Your task to perform on an android device: toggle translation in the chrome app Image 0: 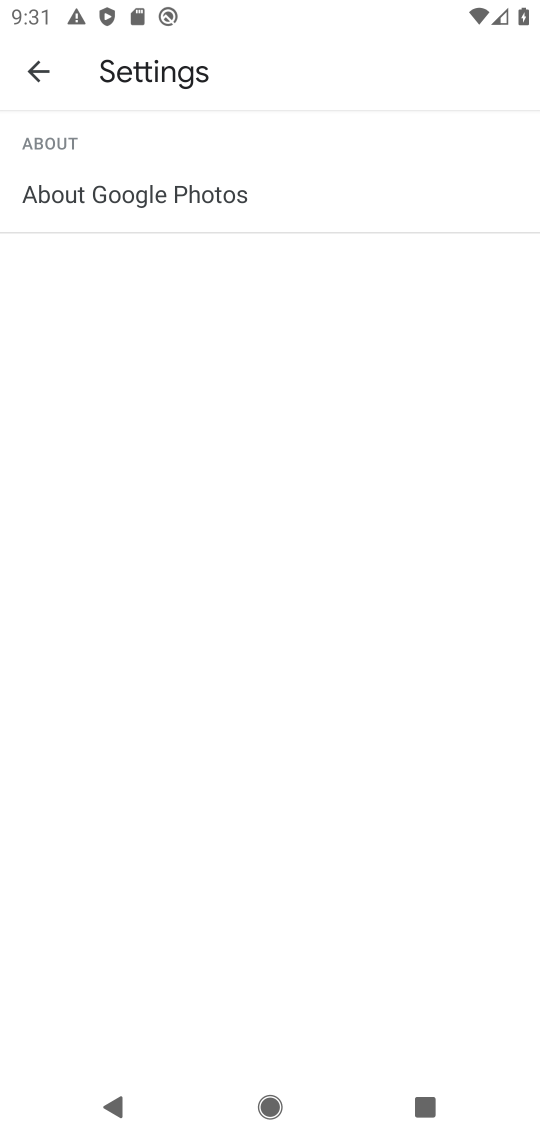
Step 0: press home button
Your task to perform on an android device: toggle translation in the chrome app Image 1: 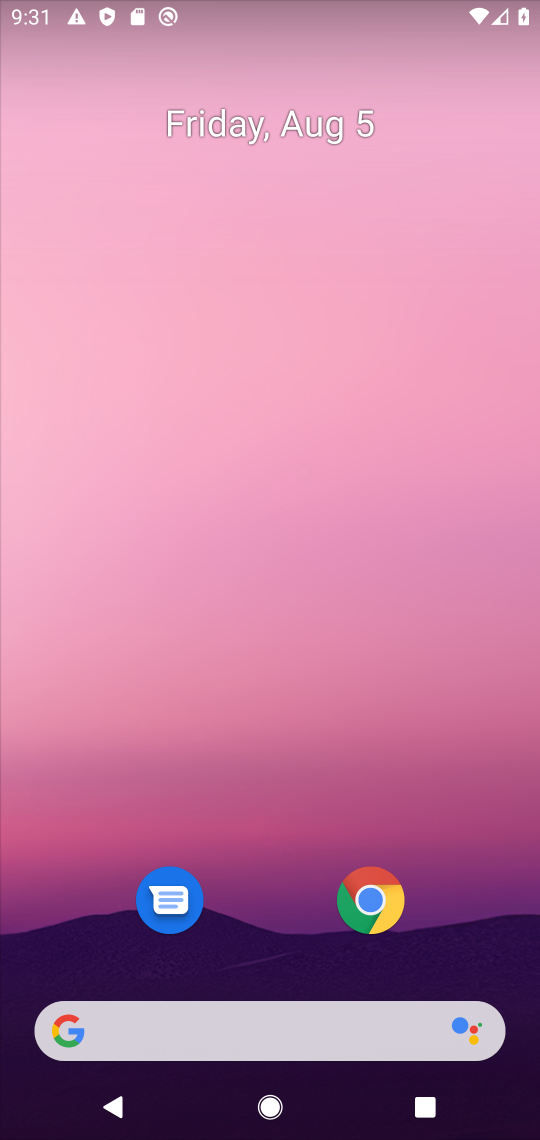
Step 1: drag from (475, 934) to (308, 136)
Your task to perform on an android device: toggle translation in the chrome app Image 2: 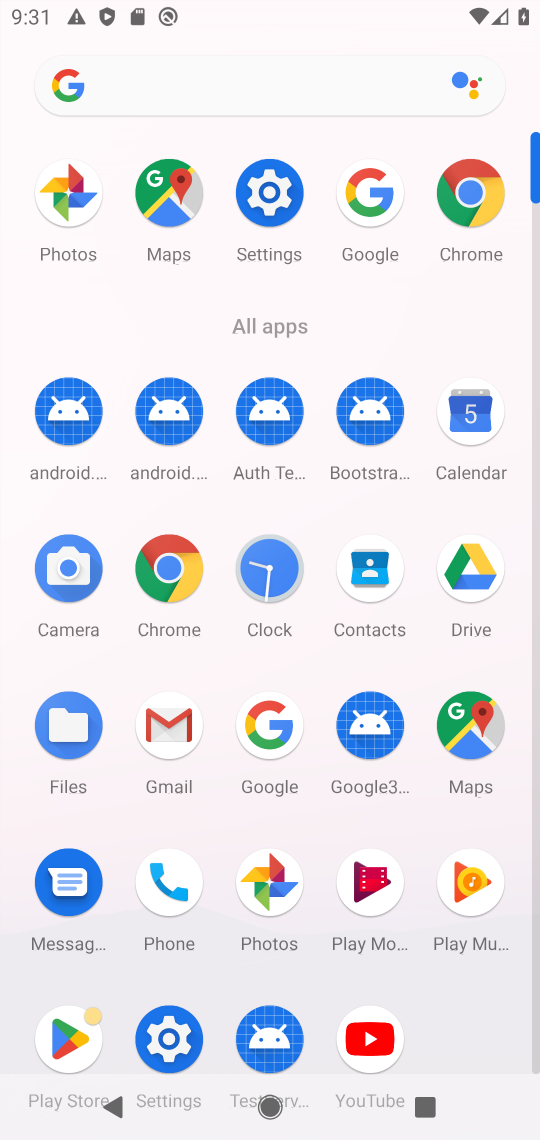
Step 2: click (448, 172)
Your task to perform on an android device: toggle translation in the chrome app Image 3: 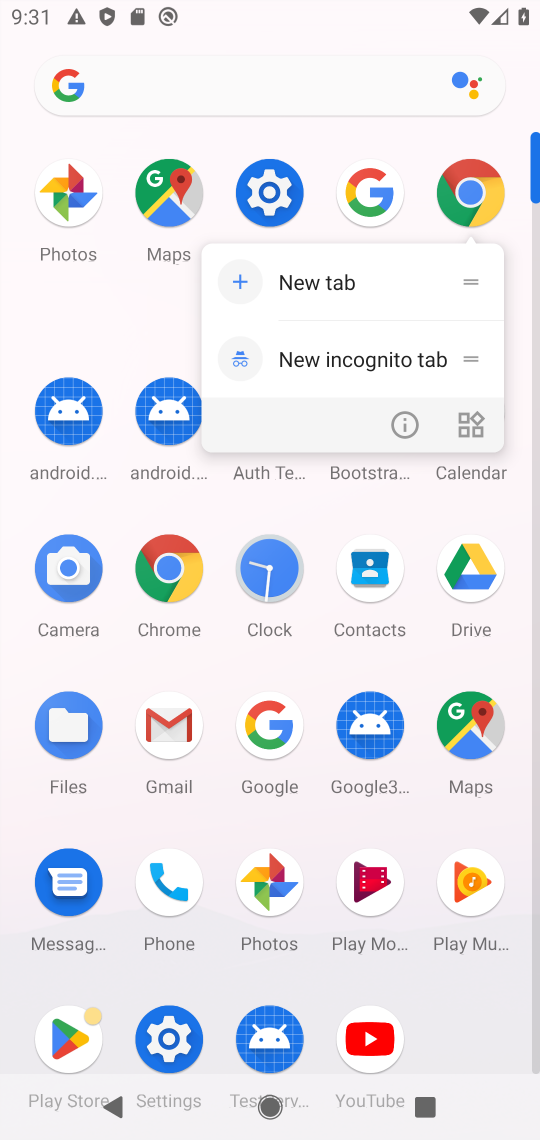
Step 3: click (465, 195)
Your task to perform on an android device: toggle translation in the chrome app Image 4: 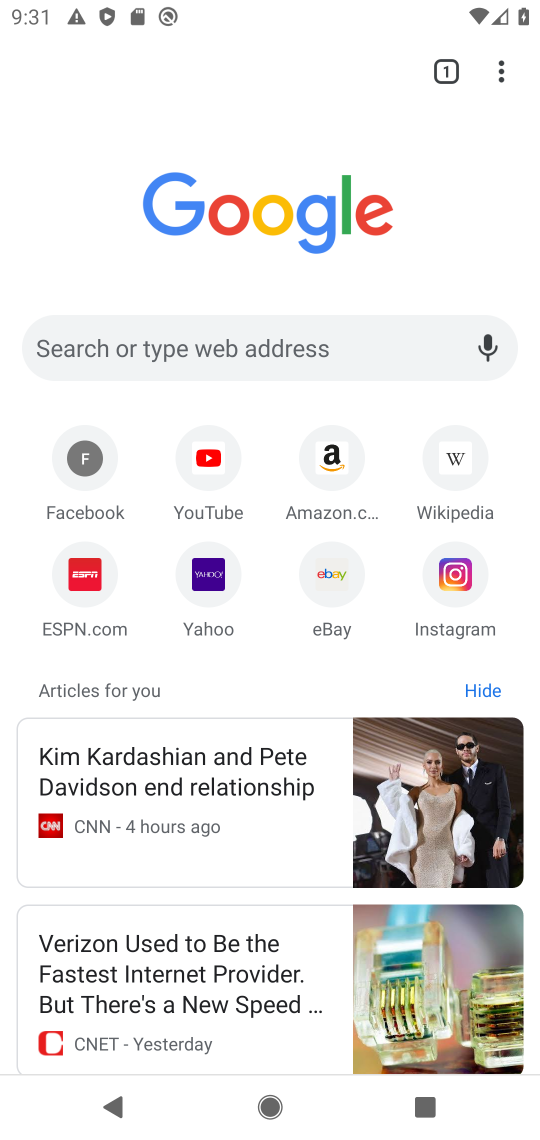
Step 4: click (465, 195)
Your task to perform on an android device: toggle translation in the chrome app Image 5: 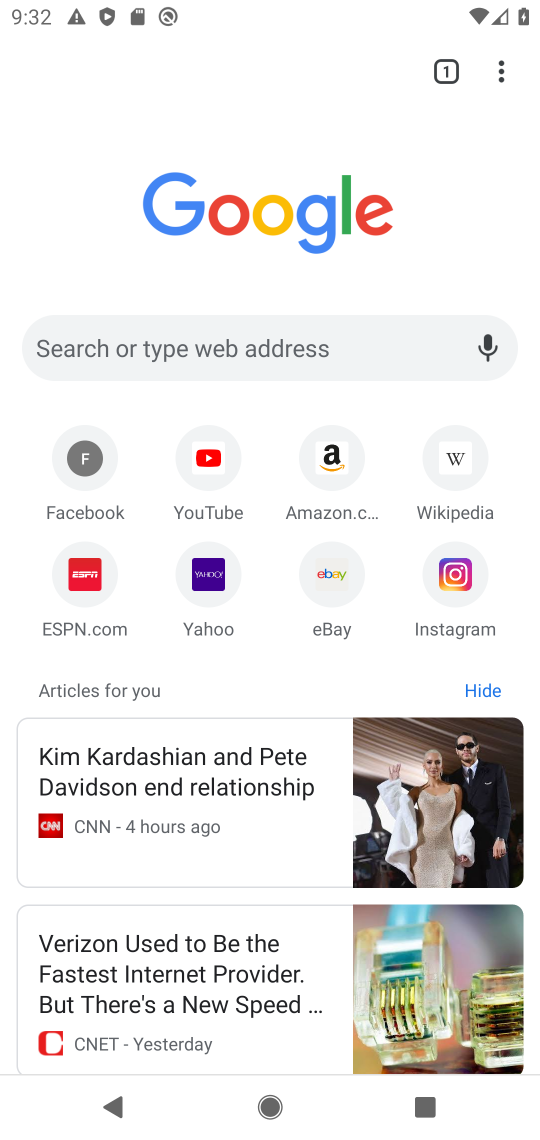
Step 5: click (502, 88)
Your task to perform on an android device: toggle translation in the chrome app Image 6: 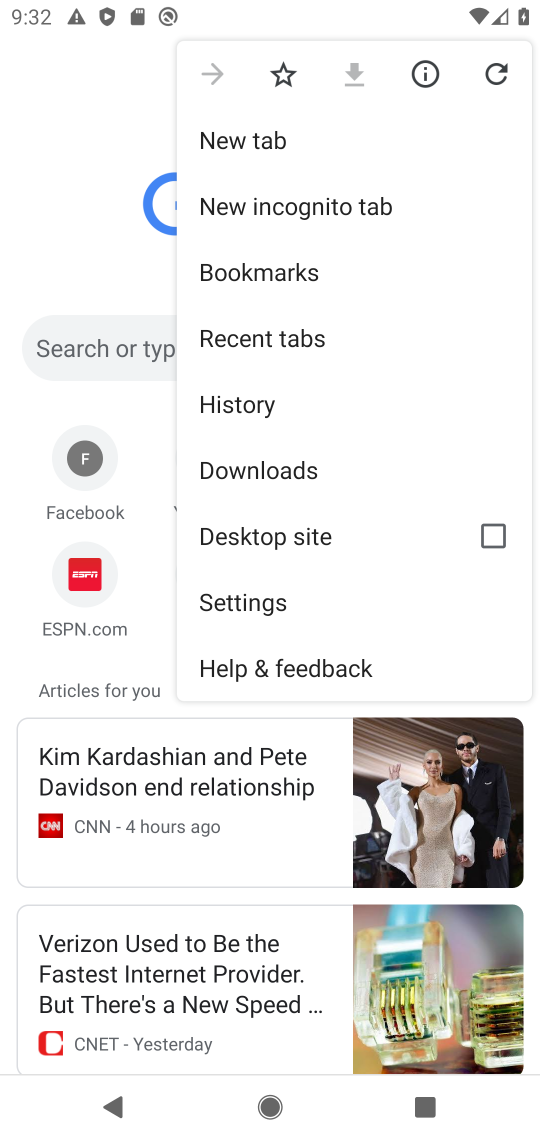
Step 6: click (505, 71)
Your task to perform on an android device: toggle translation in the chrome app Image 7: 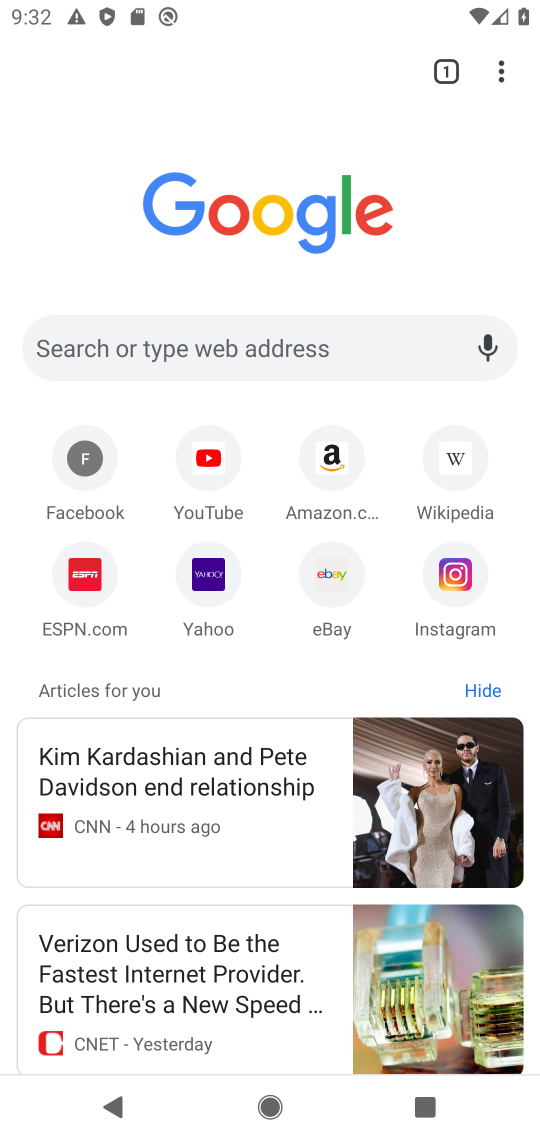
Step 7: click (487, 87)
Your task to perform on an android device: toggle translation in the chrome app Image 8: 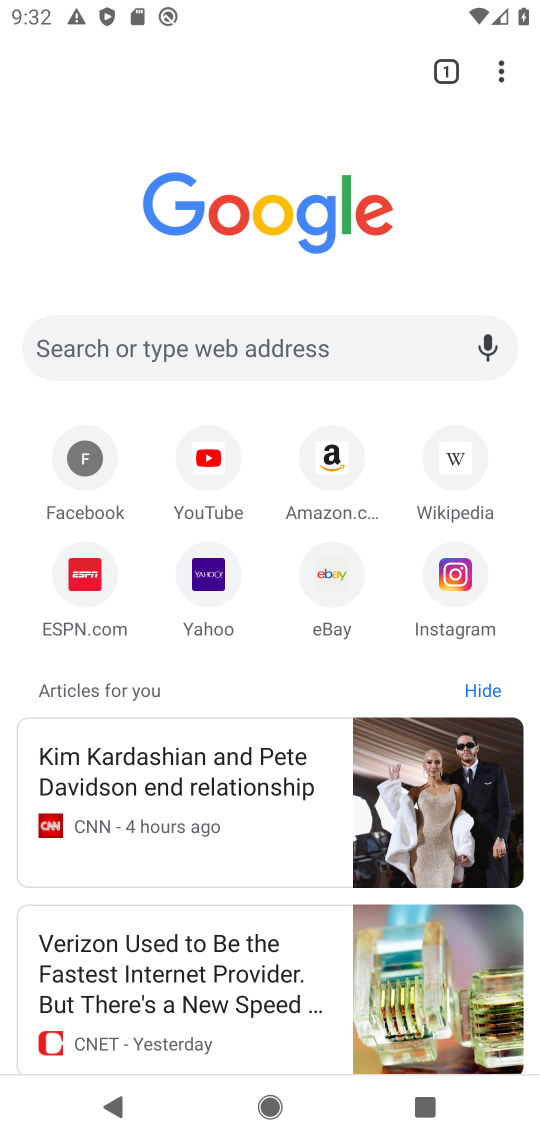
Step 8: click (501, 81)
Your task to perform on an android device: toggle translation in the chrome app Image 9: 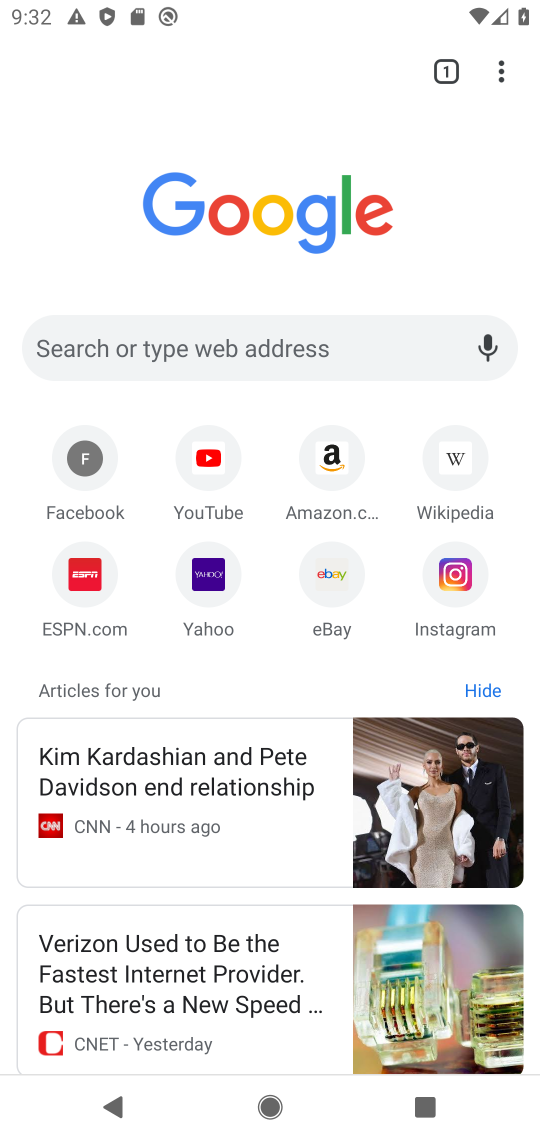
Step 9: click (506, 65)
Your task to perform on an android device: toggle translation in the chrome app Image 10: 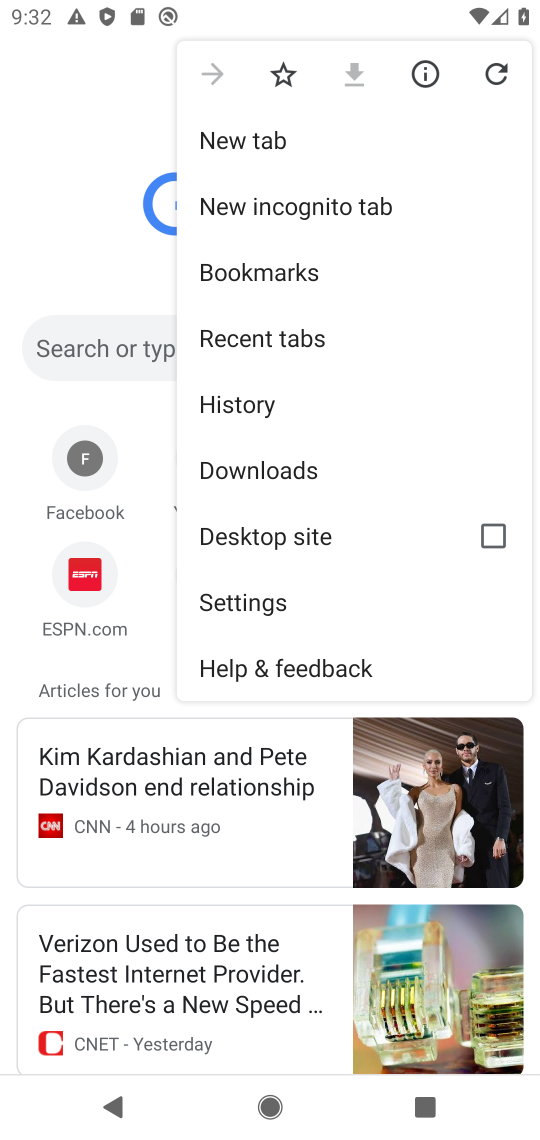
Step 10: click (268, 600)
Your task to perform on an android device: toggle translation in the chrome app Image 11: 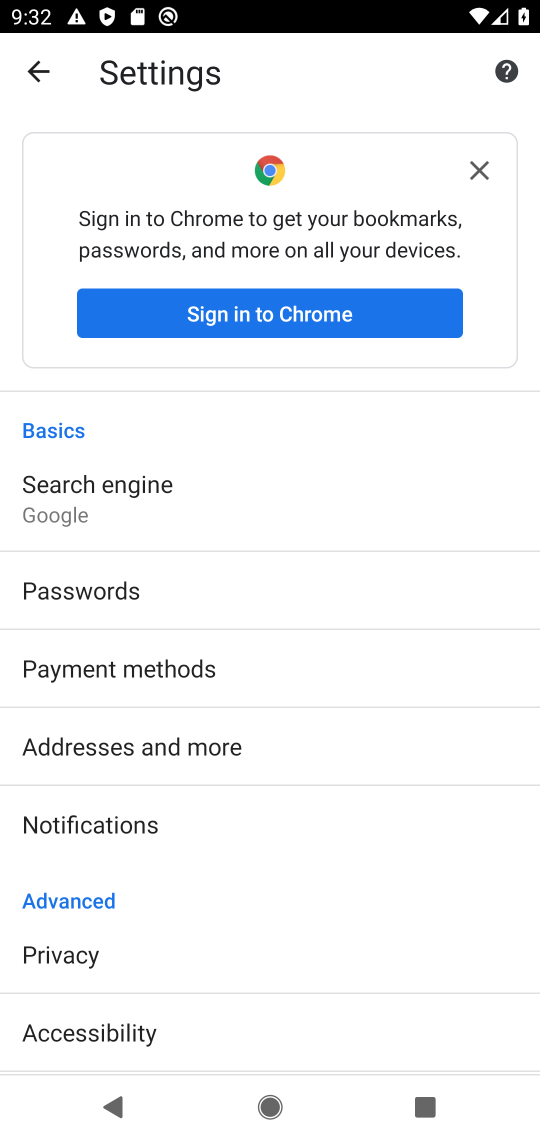
Step 11: drag from (246, 978) to (213, 261)
Your task to perform on an android device: toggle translation in the chrome app Image 12: 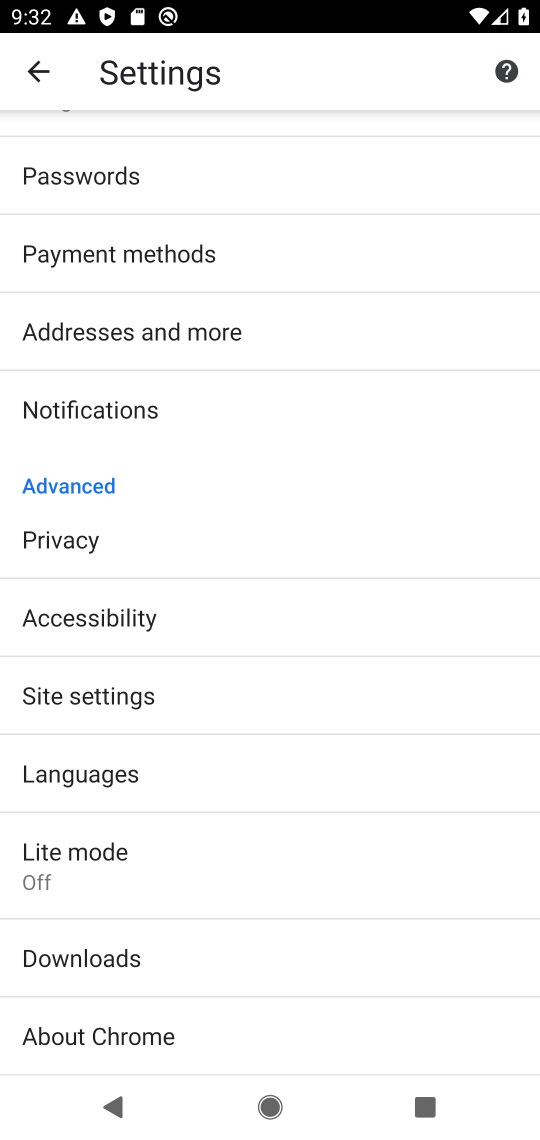
Step 12: click (228, 792)
Your task to perform on an android device: toggle translation in the chrome app Image 13: 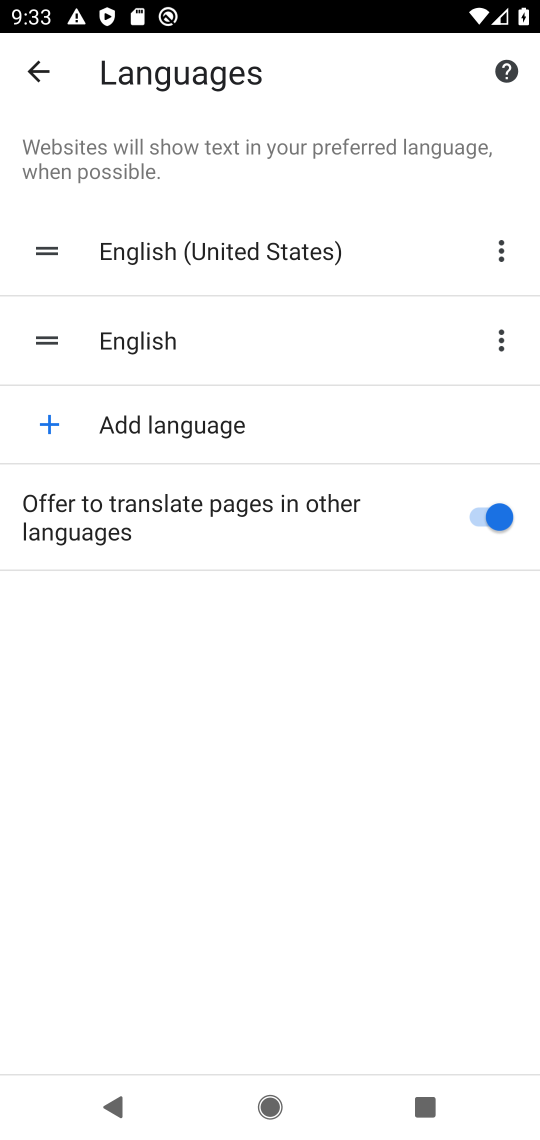
Step 13: click (475, 521)
Your task to perform on an android device: toggle translation in the chrome app Image 14: 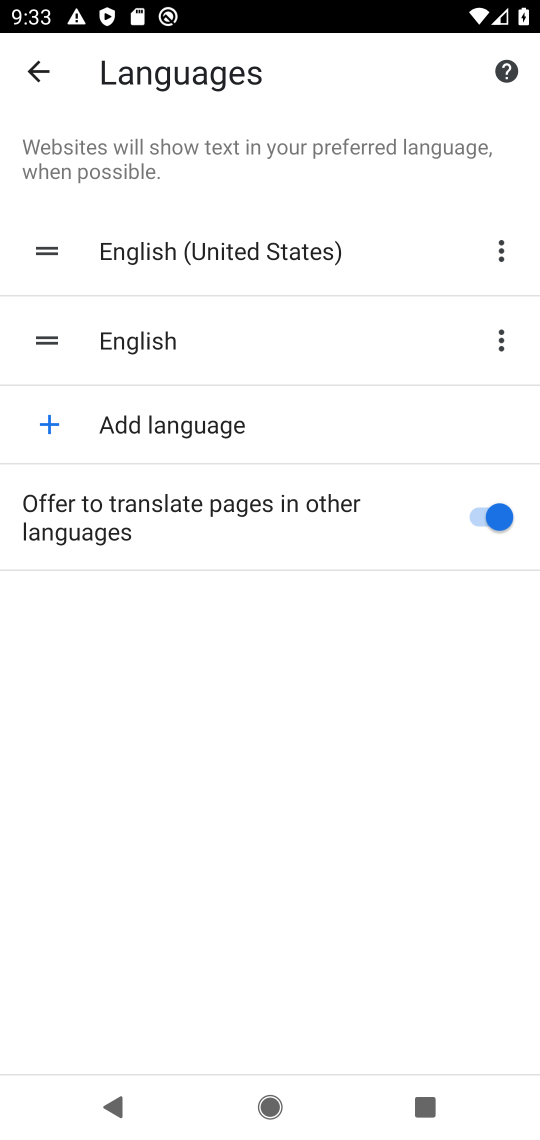
Step 14: click (495, 528)
Your task to perform on an android device: toggle translation in the chrome app Image 15: 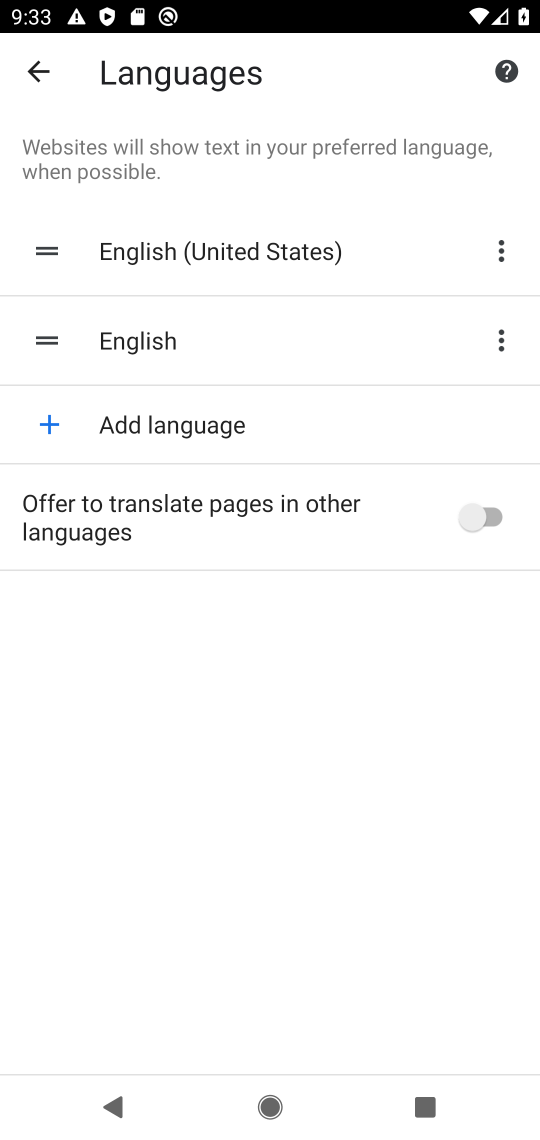
Step 15: task complete